Your task to perform on an android device: refresh tabs in the chrome app Image 0: 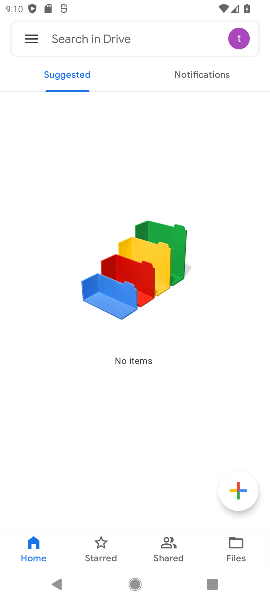
Step 0: press home button
Your task to perform on an android device: refresh tabs in the chrome app Image 1: 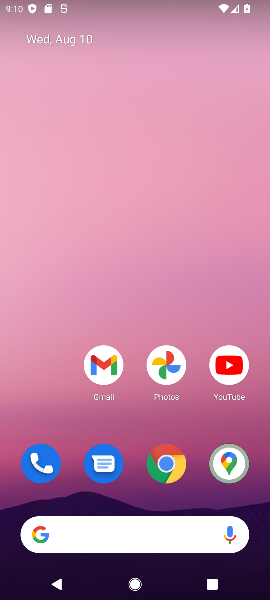
Step 1: click (166, 458)
Your task to perform on an android device: refresh tabs in the chrome app Image 2: 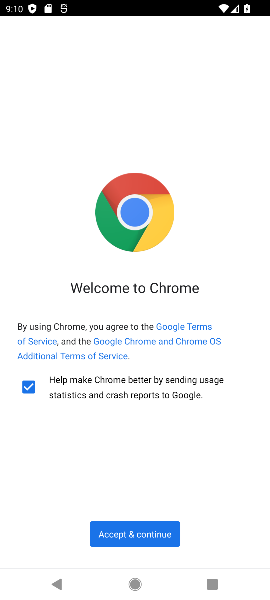
Step 2: click (125, 531)
Your task to perform on an android device: refresh tabs in the chrome app Image 3: 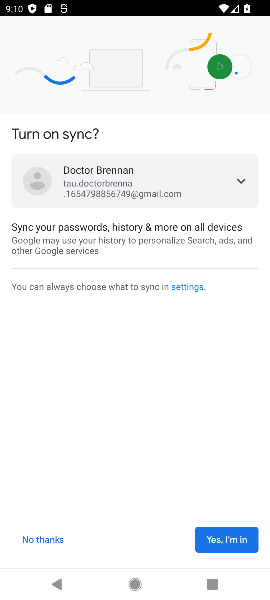
Step 3: click (53, 537)
Your task to perform on an android device: refresh tabs in the chrome app Image 4: 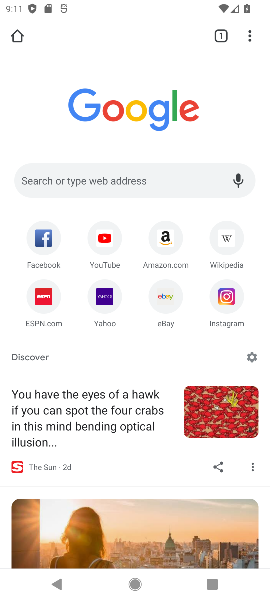
Step 4: click (248, 33)
Your task to perform on an android device: refresh tabs in the chrome app Image 5: 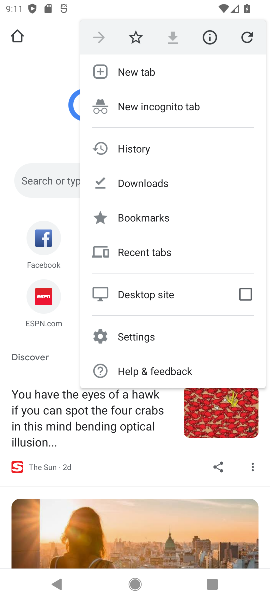
Step 5: click (250, 38)
Your task to perform on an android device: refresh tabs in the chrome app Image 6: 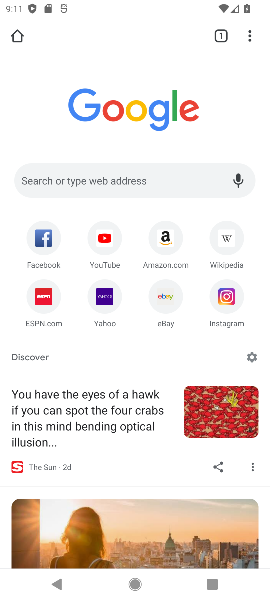
Step 6: task complete